Your task to perform on an android device: Open internet settings Image 0: 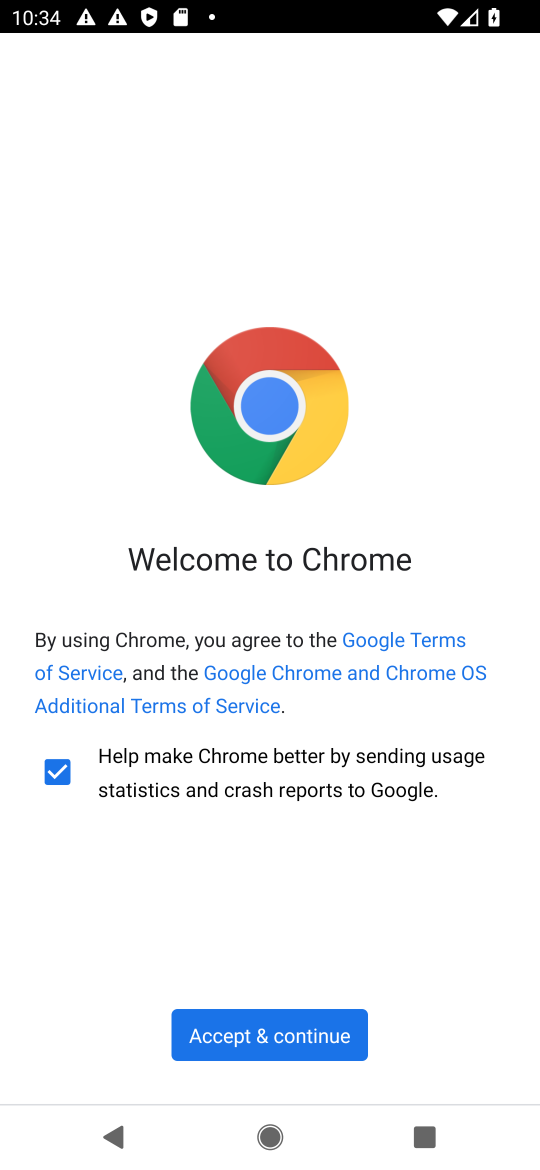
Step 0: click (273, 1035)
Your task to perform on an android device: Open internet settings Image 1: 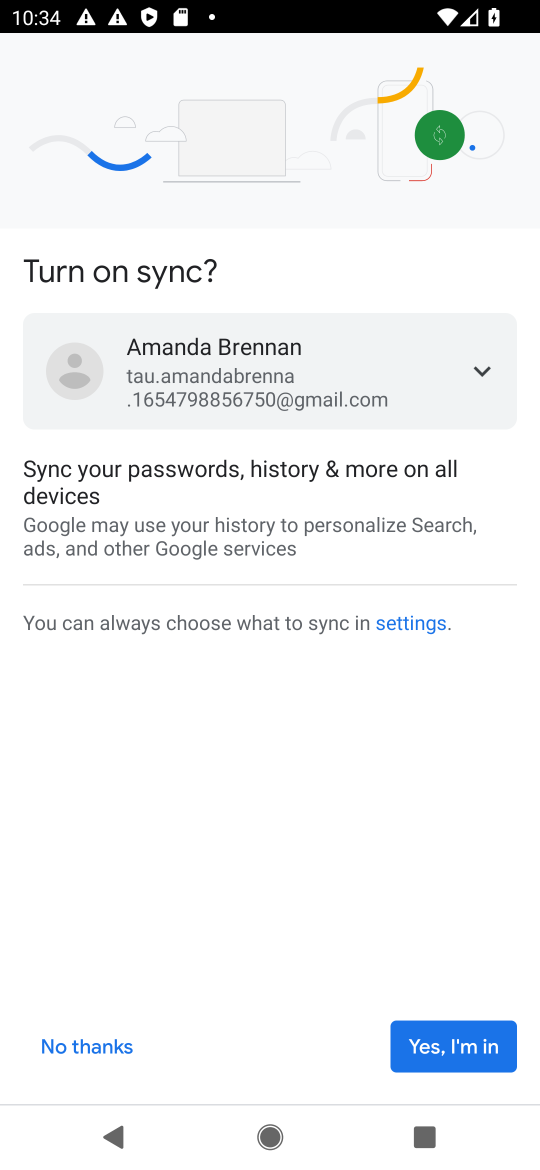
Step 1: press home button
Your task to perform on an android device: Open internet settings Image 2: 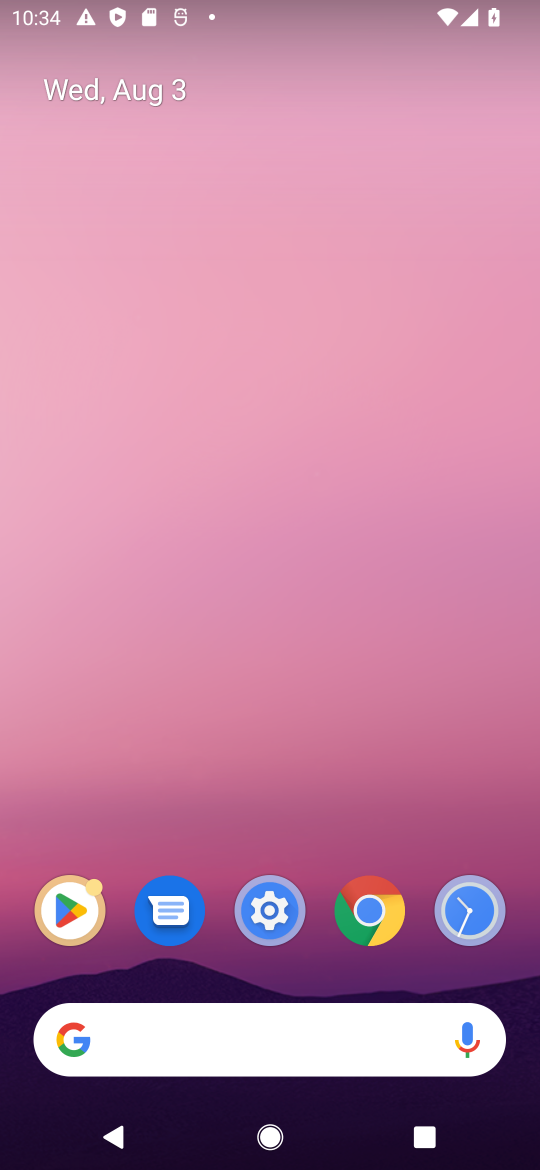
Step 2: click (263, 906)
Your task to perform on an android device: Open internet settings Image 3: 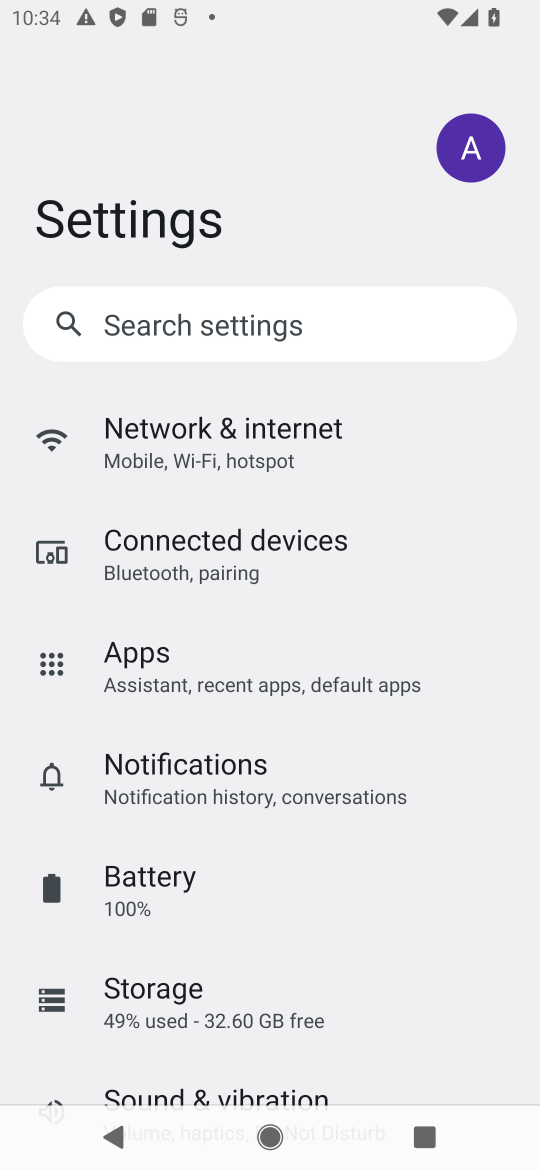
Step 3: click (170, 438)
Your task to perform on an android device: Open internet settings Image 4: 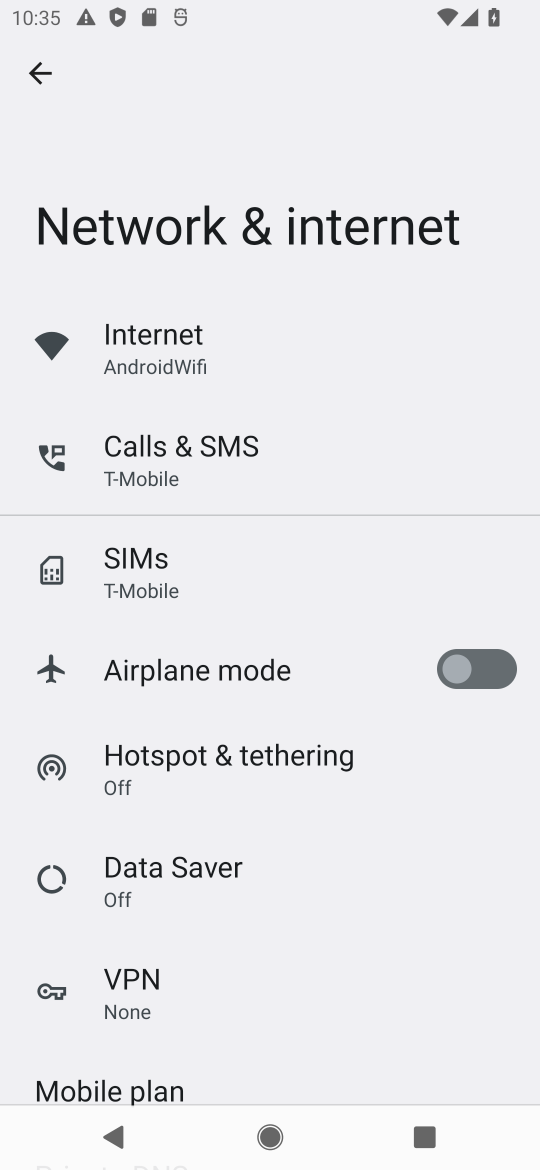
Step 4: click (156, 366)
Your task to perform on an android device: Open internet settings Image 5: 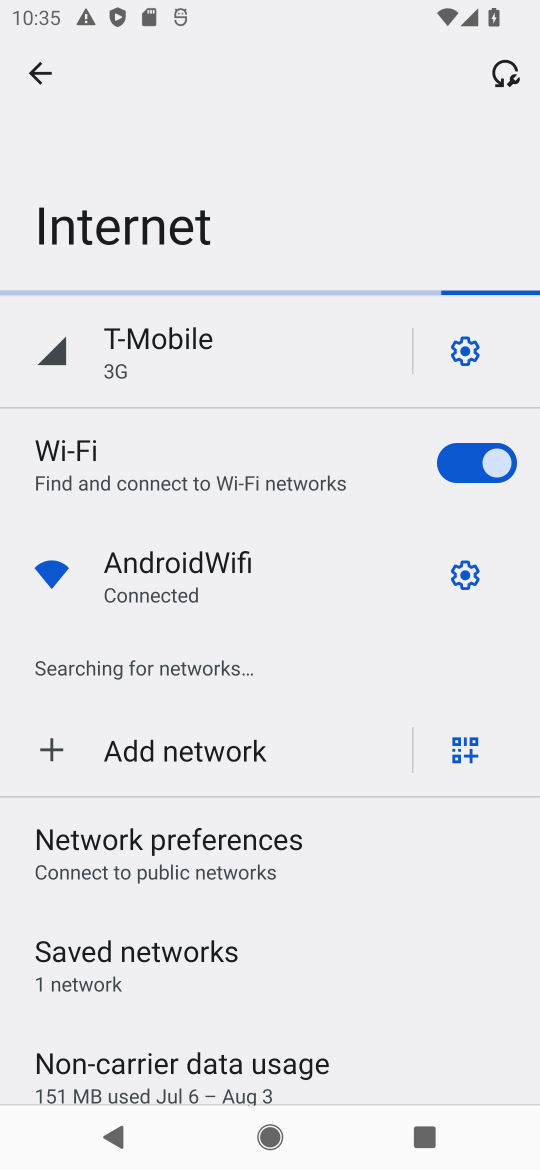
Step 5: task complete